Your task to perform on an android device: turn pop-ups off in chrome Image 0: 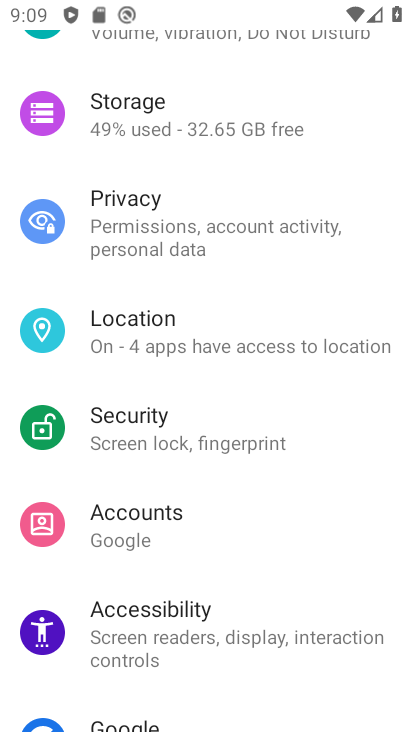
Step 0: press home button
Your task to perform on an android device: turn pop-ups off in chrome Image 1: 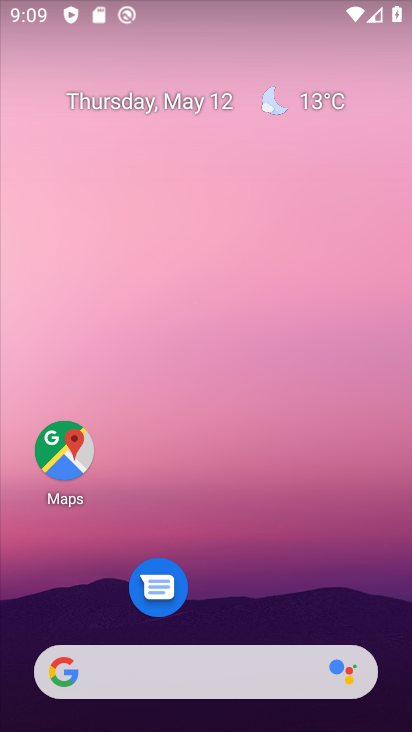
Step 1: drag from (234, 618) to (209, 14)
Your task to perform on an android device: turn pop-ups off in chrome Image 2: 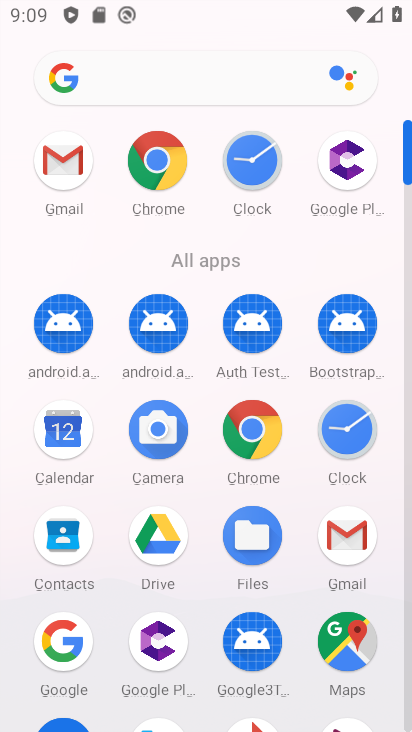
Step 2: click (256, 429)
Your task to perform on an android device: turn pop-ups off in chrome Image 3: 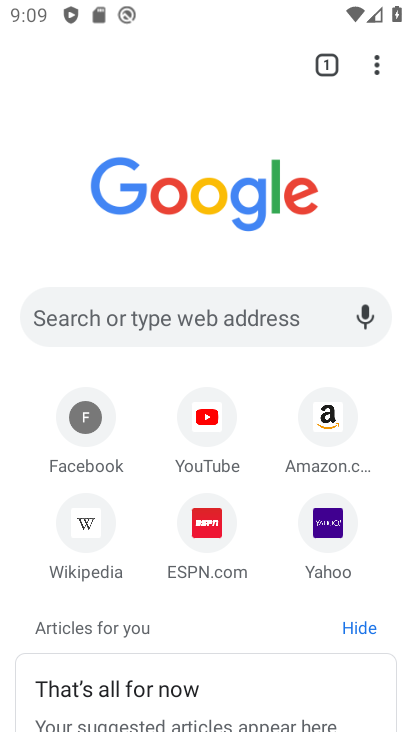
Step 3: click (378, 65)
Your task to perform on an android device: turn pop-ups off in chrome Image 4: 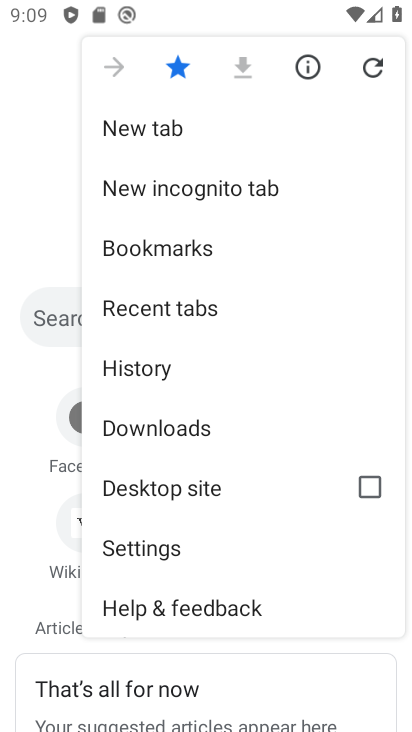
Step 4: click (187, 560)
Your task to perform on an android device: turn pop-ups off in chrome Image 5: 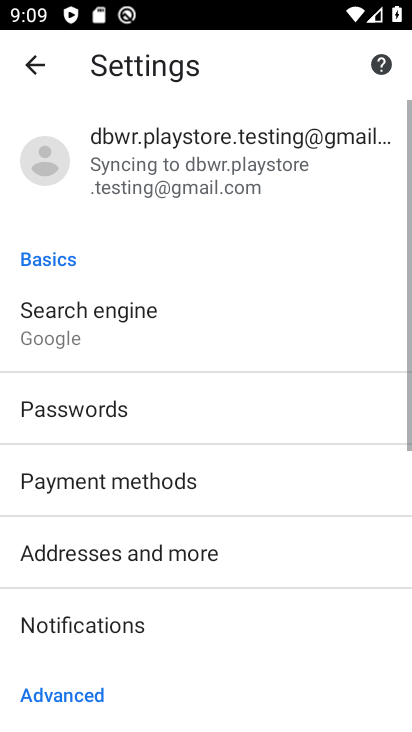
Step 5: drag from (191, 557) to (158, 5)
Your task to perform on an android device: turn pop-ups off in chrome Image 6: 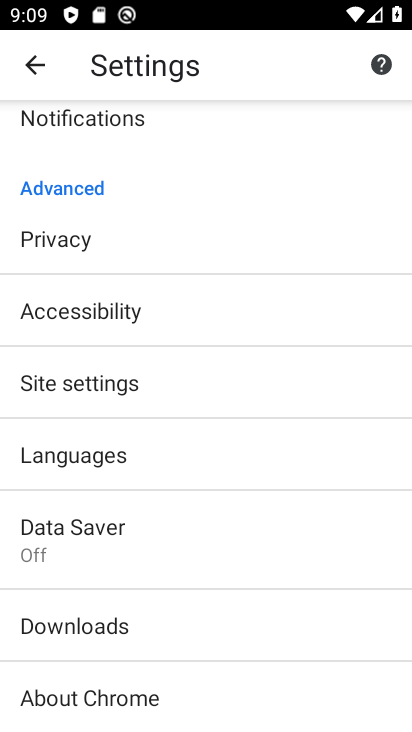
Step 6: drag from (105, 658) to (105, 160)
Your task to perform on an android device: turn pop-ups off in chrome Image 7: 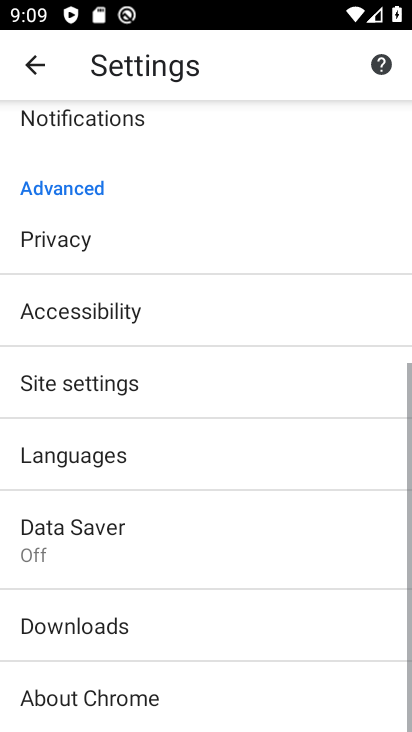
Step 7: click (130, 356)
Your task to perform on an android device: turn pop-ups off in chrome Image 8: 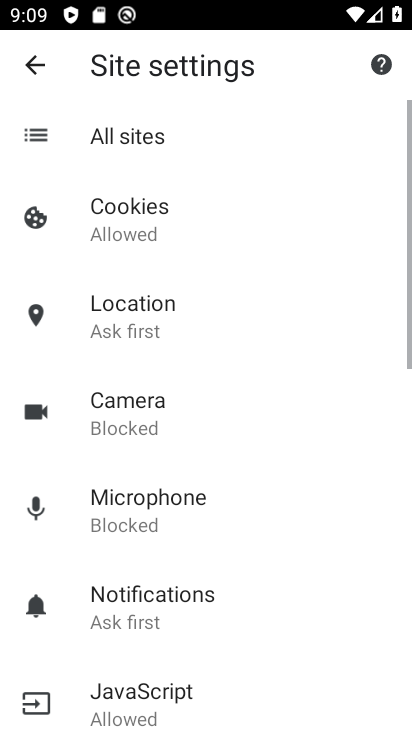
Step 8: drag from (157, 552) to (126, 116)
Your task to perform on an android device: turn pop-ups off in chrome Image 9: 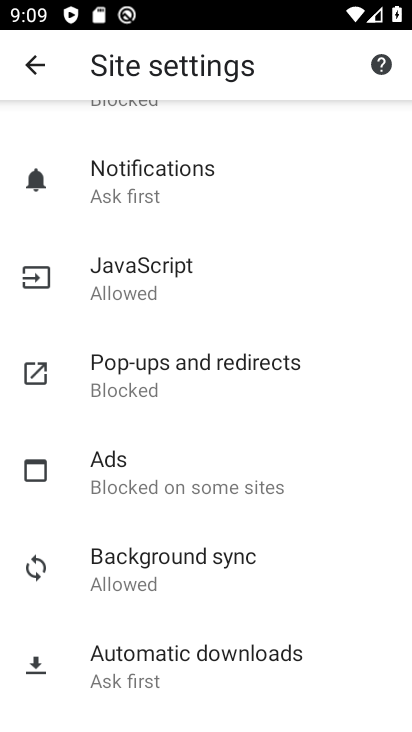
Step 9: click (123, 378)
Your task to perform on an android device: turn pop-ups off in chrome Image 10: 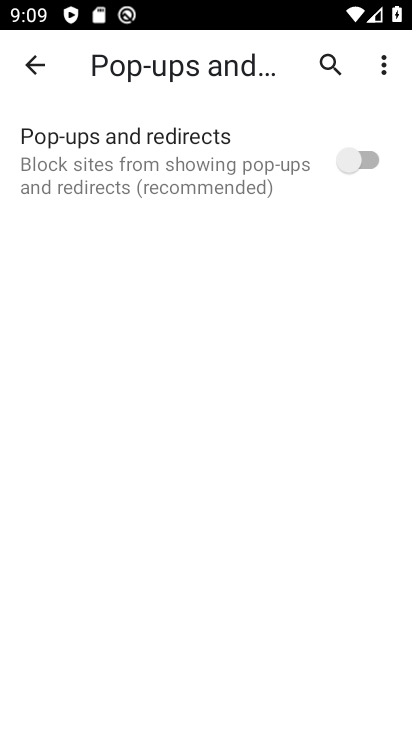
Step 10: task complete